Your task to perform on an android device: Go to eBay Image 0: 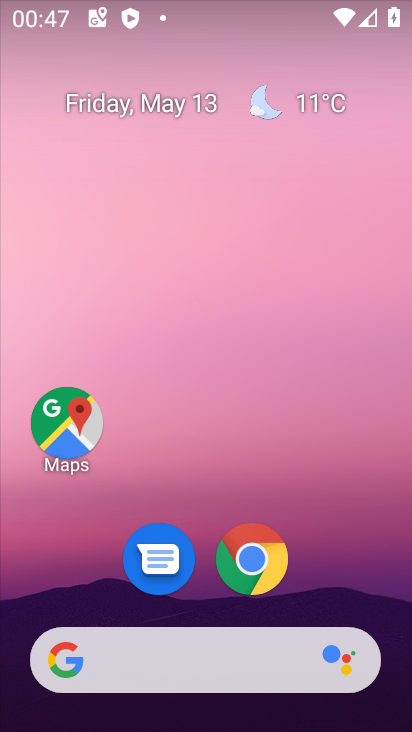
Step 0: drag from (205, 601) to (204, 166)
Your task to perform on an android device: Go to eBay Image 1: 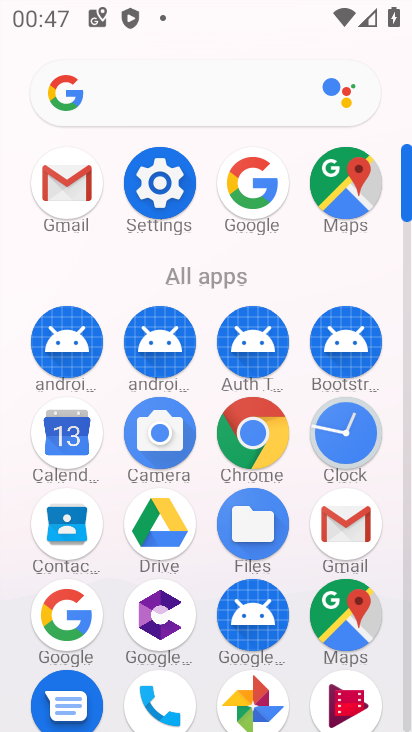
Step 1: click (248, 184)
Your task to perform on an android device: Go to eBay Image 2: 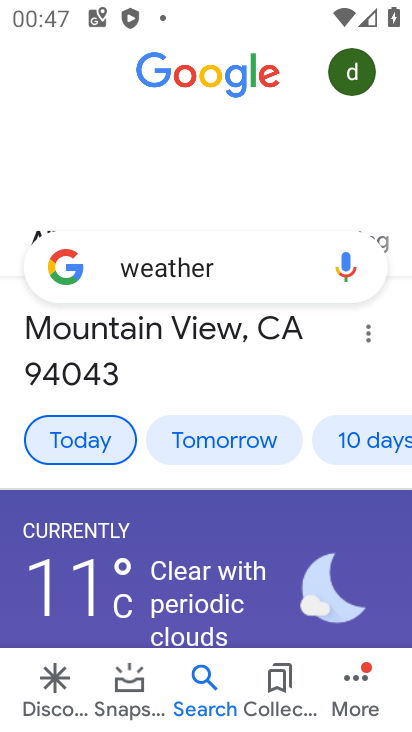
Step 2: click (247, 249)
Your task to perform on an android device: Go to eBay Image 3: 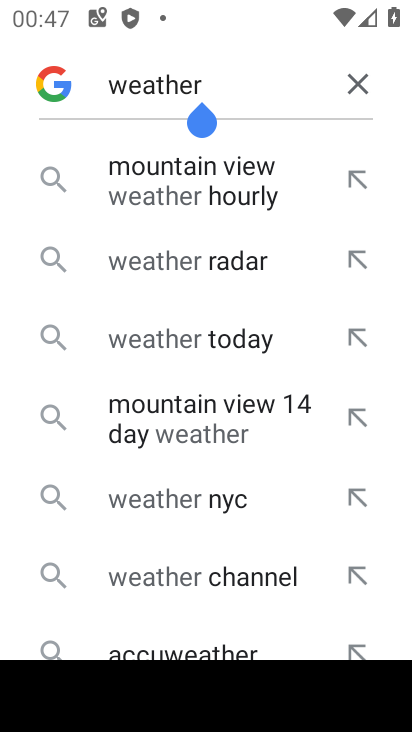
Step 3: click (352, 84)
Your task to perform on an android device: Go to eBay Image 4: 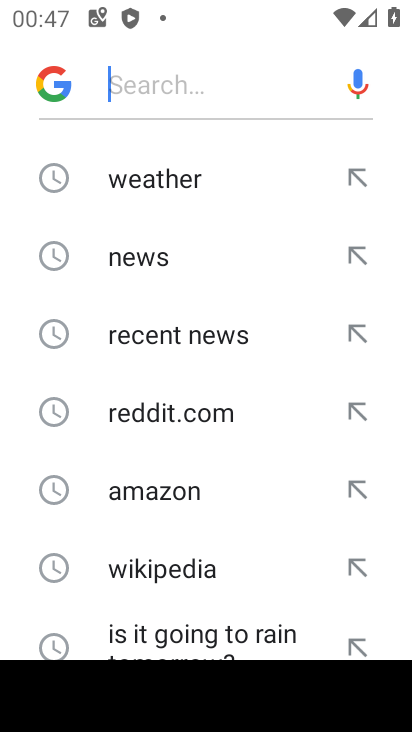
Step 4: drag from (255, 581) to (242, 105)
Your task to perform on an android device: Go to eBay Image 5: 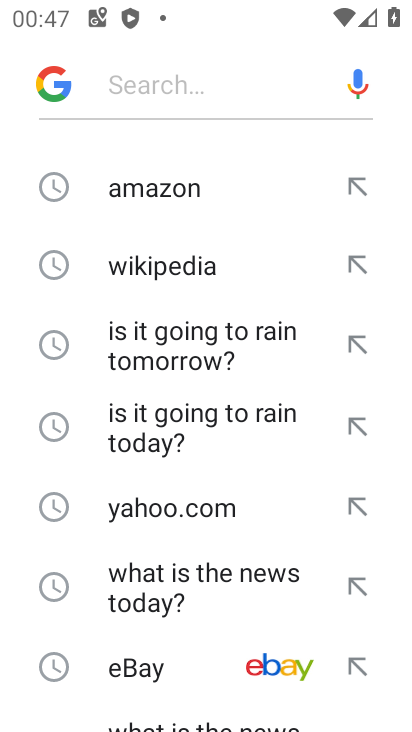
Step 5: click (191, 675)
Your task to perform on an android device: Go to eBay Image 6: 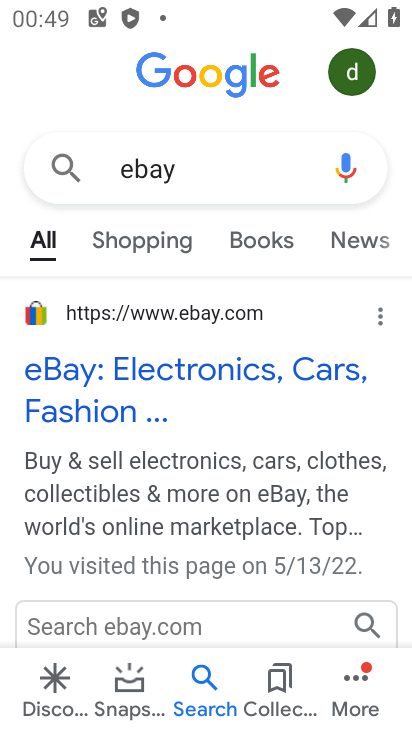
Step 6: task complete